Your task to perform on an android device: Clear the cart on newegg. Add "dell xps" to the cart on newegg Image 0: 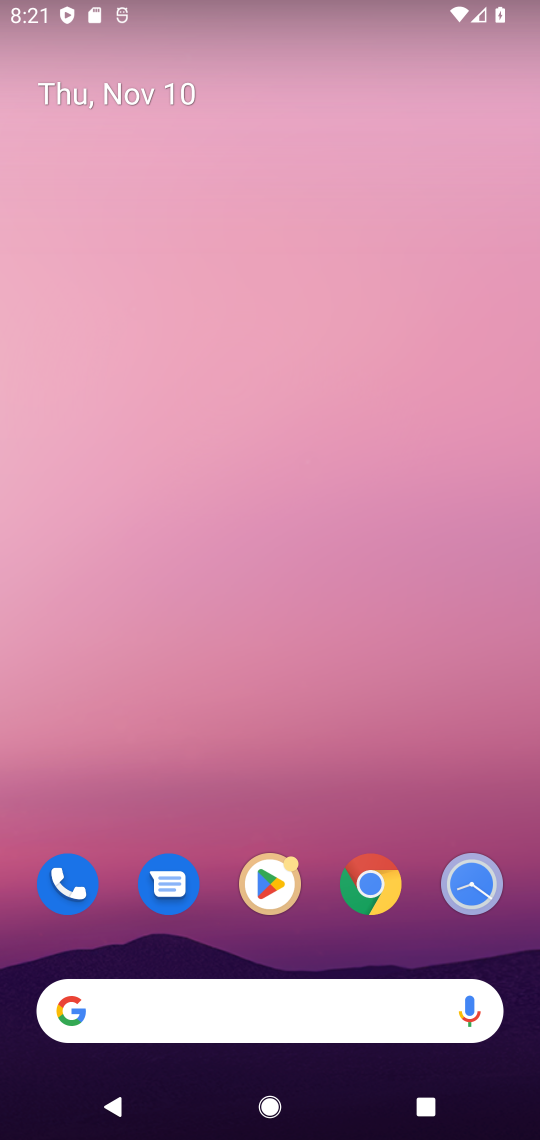
Step 0: click (191, 1007)
Your task to perform on an android device: Clear the cart on newegg. Add "dell xps" to the cart on newegg Image 1: 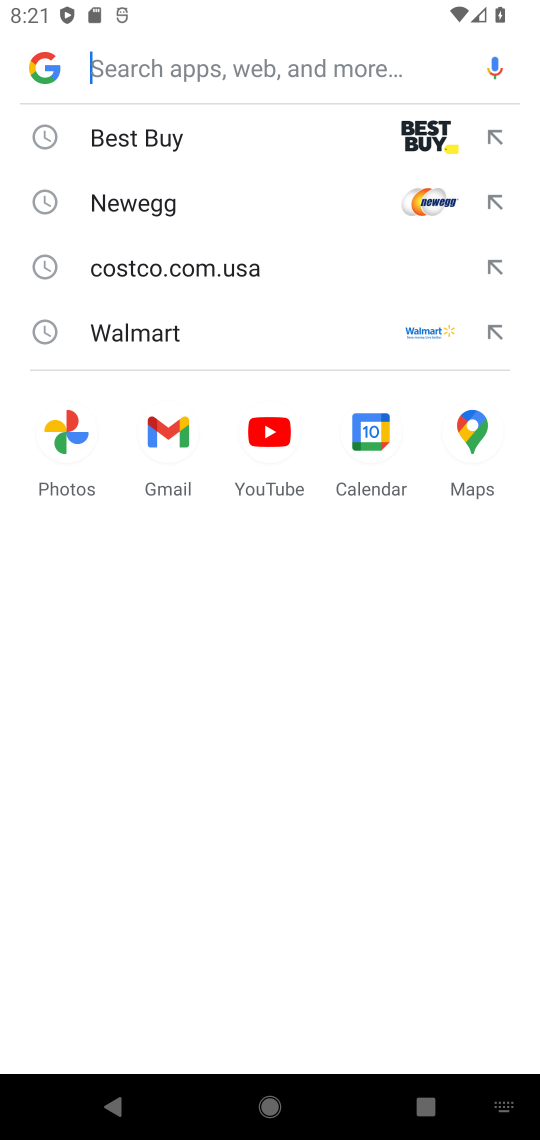
Step 1: click (149, 209)
Your task to perform on an android device: Clear the cart on newegg. Add "dell xps" to the cart on newegg Image 2: 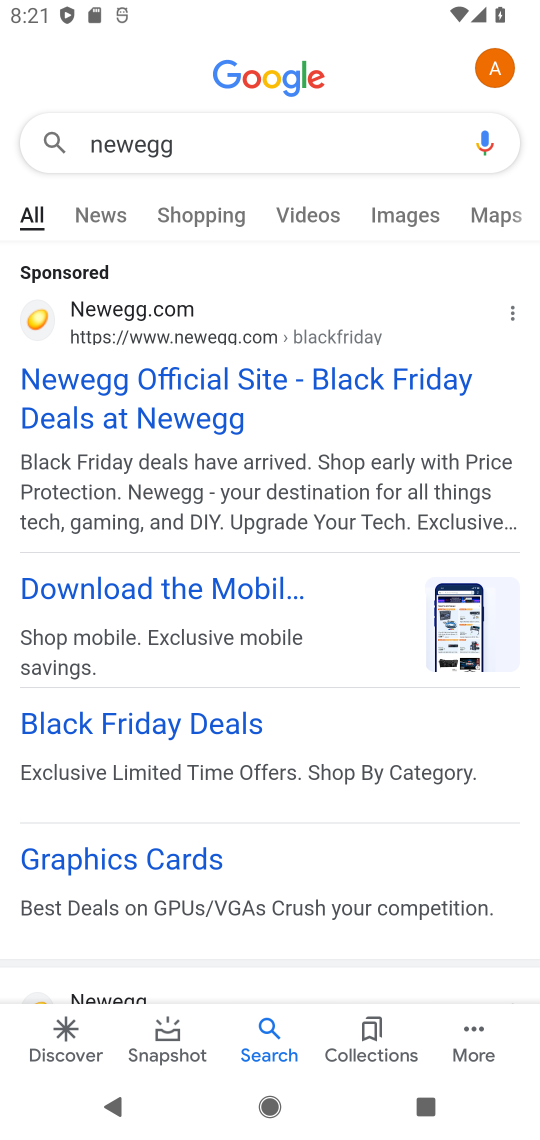
Step 2: click (117, 314)
Your task to perform on an android device: Clear the cart on newegg. Add "dell xps" to the cart on newegg Image 3: 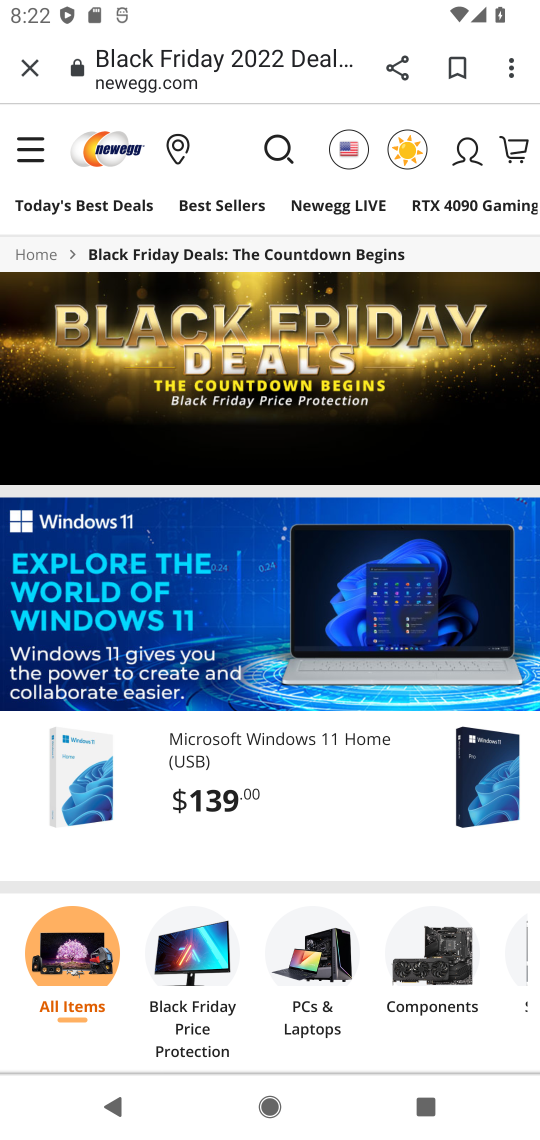
Step 3: click (277, 143)
Your task to perform on an android device: Clear the cart on newegg. Add "dell xps" to the cart on newegg Image 4: 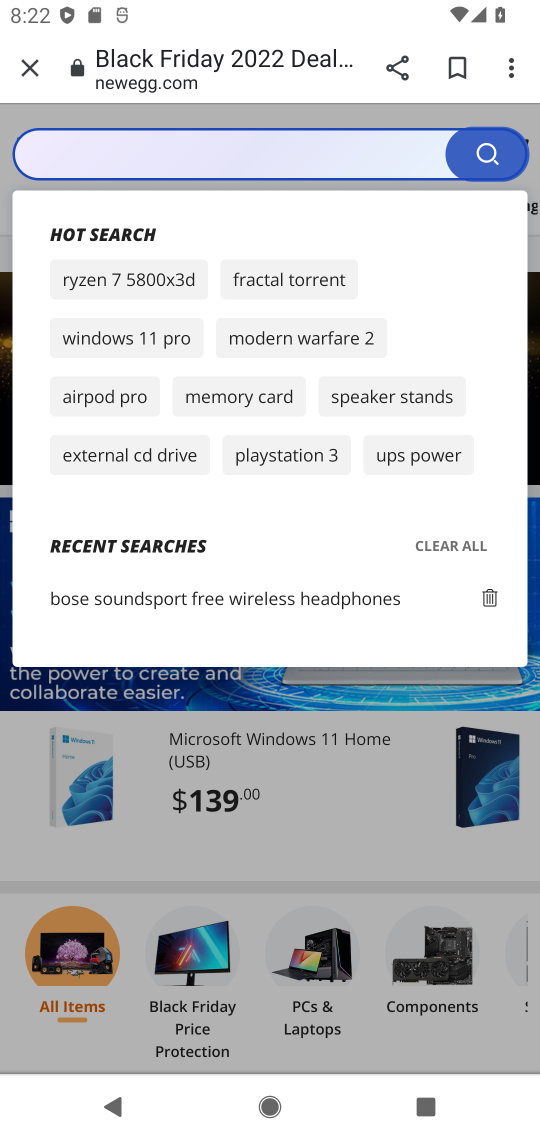
Step 4: click (259, 147)
Your task to perform on an android device: Clear the cart on newegg. Add "dell xps" to the cart on newegg Image 5: 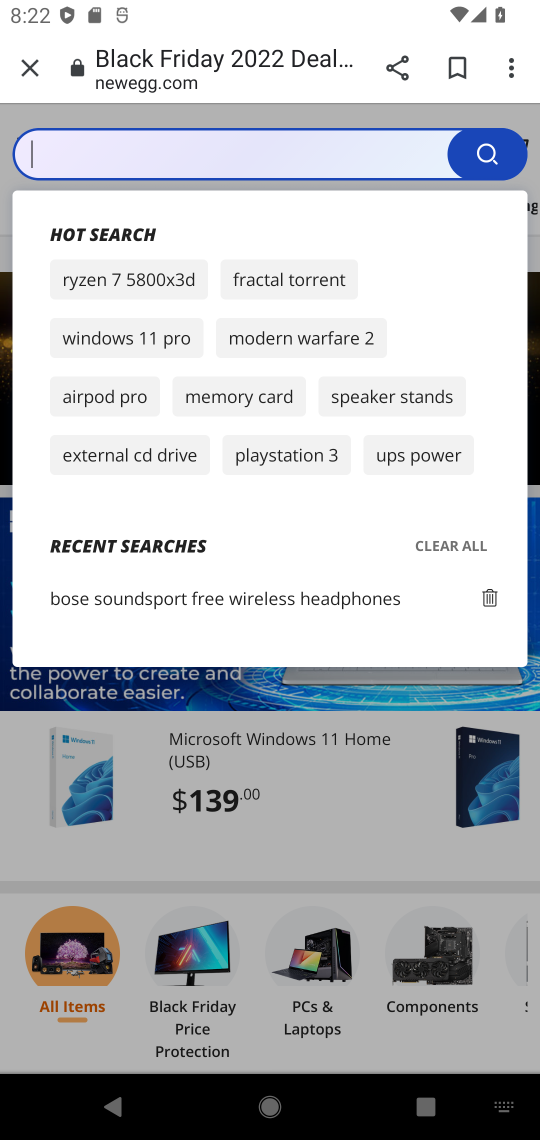
Step 5: type "dell xps"
Your task to perform on an android device: Clear the cart on newegg. Add "dell xps" to the cart on newegg Image 6: 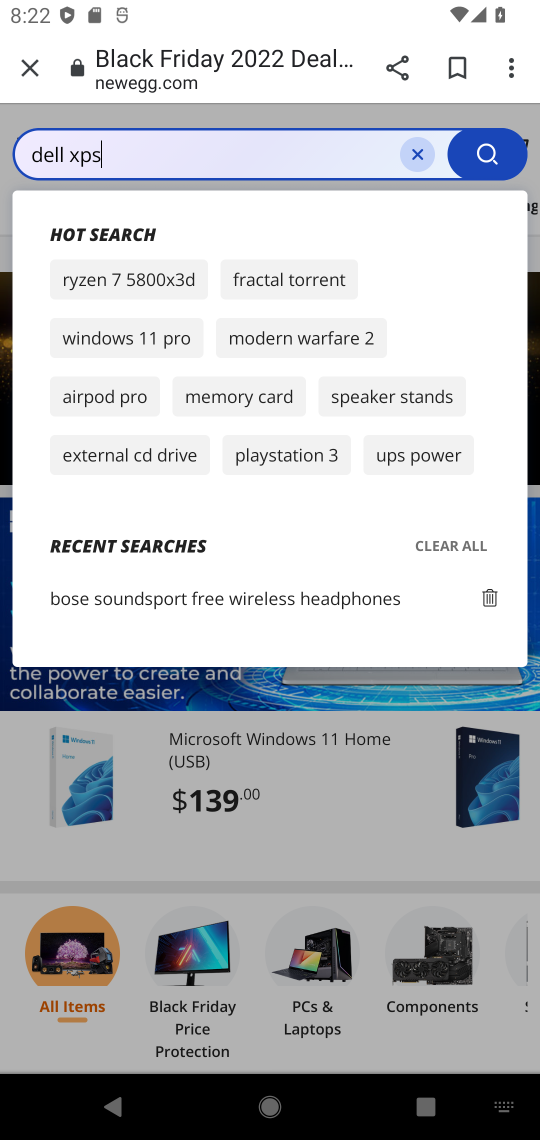
Step 6: type ""
Your task to perform on an android device: Clear the cart on newegg. Add "dell xps" to the cart on newegg Image 7: 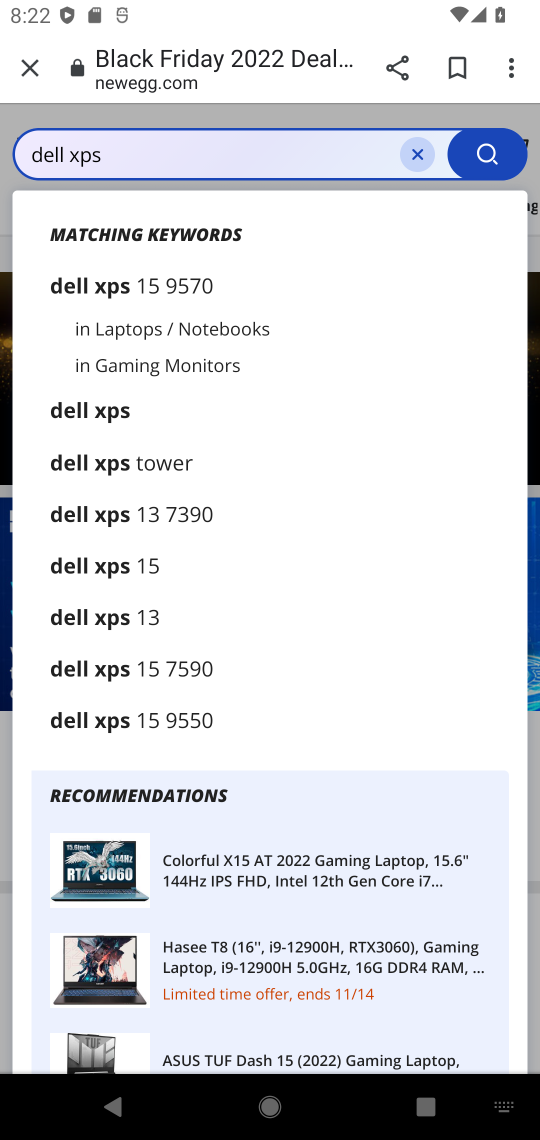
Step 7: click (106, 421)
Your task to perform on an android device: Clear the cart on newegg. Add "dell xps" to the cart on newegg Image 8: 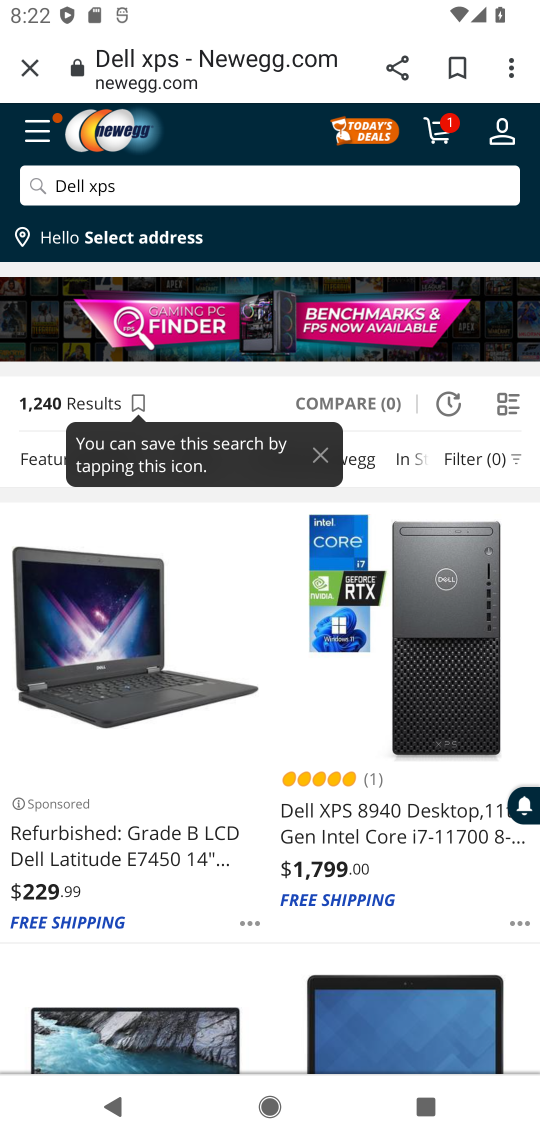
Step 8: click (81, 696)
Your task to perform on an android device: Clear the cart on newegg. Add "dell xps" to the cart on newegg Image 9: 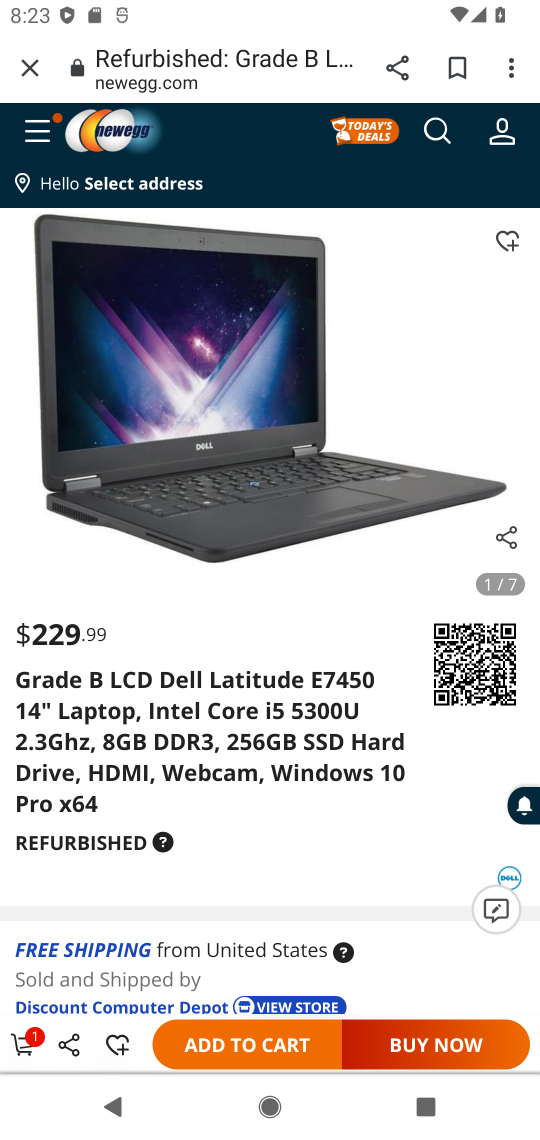
Step 9: press back button
Your task to perform on an android device: Clear the cart on newegg. Add "dell xps" to the cart on newegg Image 10: 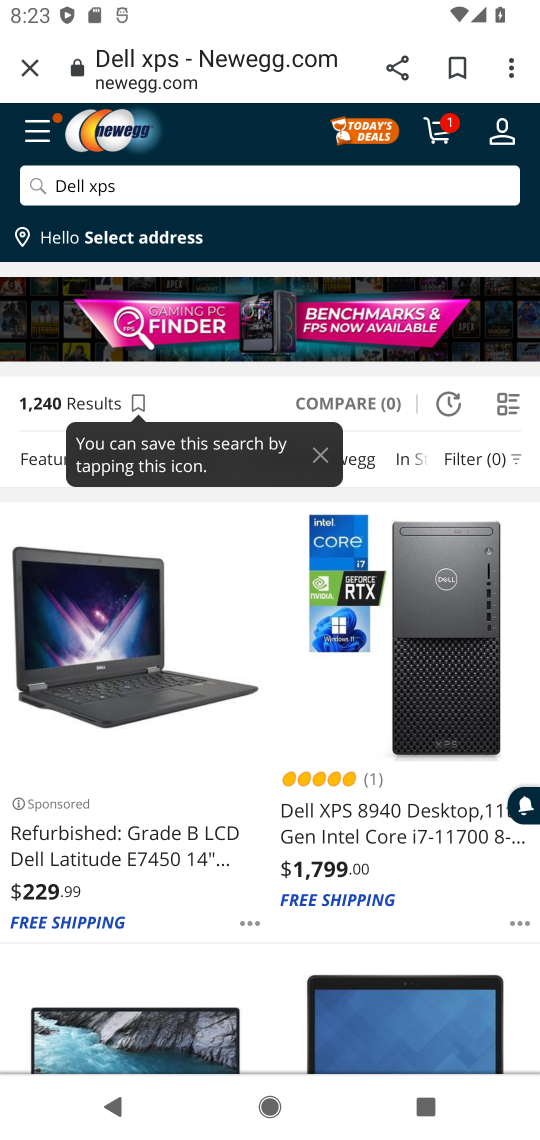
Step 10: click (440, 142)
Your task to perform on an android device: Clear the cart on newegg. Add "dell xps" to the cart on newegg Image 11: 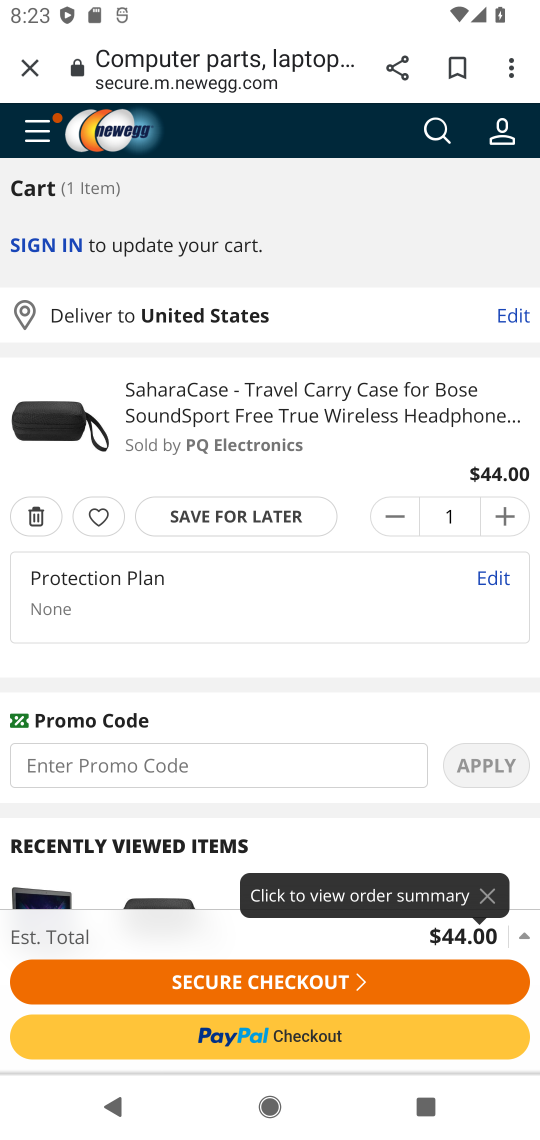
Step 11: click (37, 525)
Your task to perform on an android device: Clear the cart on newegg. Add "dell xps" to the cart on newegg Image 12: 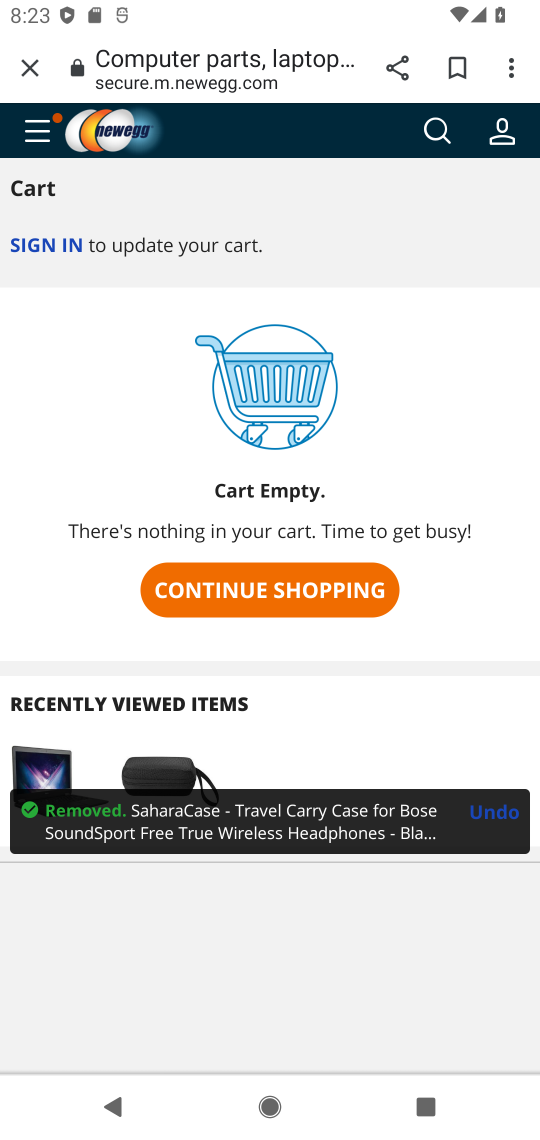
Step 12: click (444, 135)
Your task to perform on an android device: Clear the cart on newegg. Add "dell xps" to the cart on newegg Image 13: 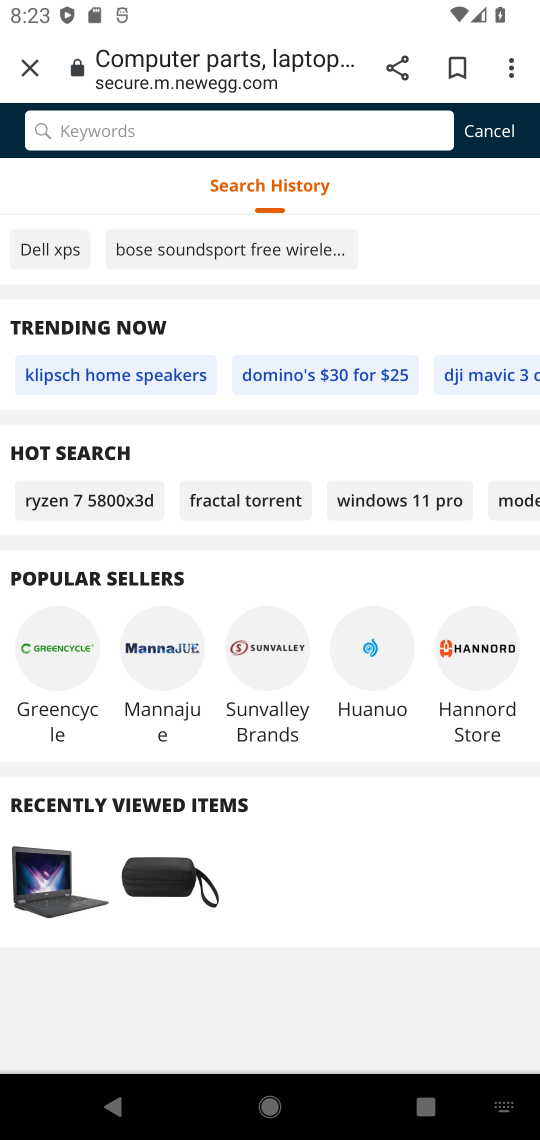
Step 13: type "dell xps"
Your task to perform on an android device: Clear the cart on newegg. Add "dell xps" to the cart on newegg Image 14: 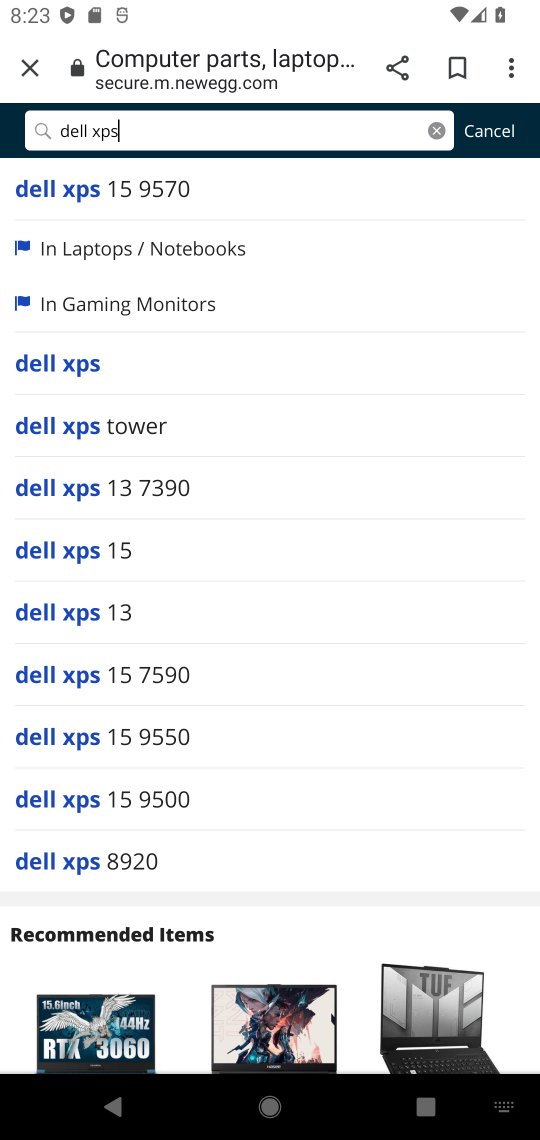
Step 14: click (74, 358)
Your task to perform on an android device: Clear the cart on newegg. Add "dell xps" to the cart on newegg Image 15: 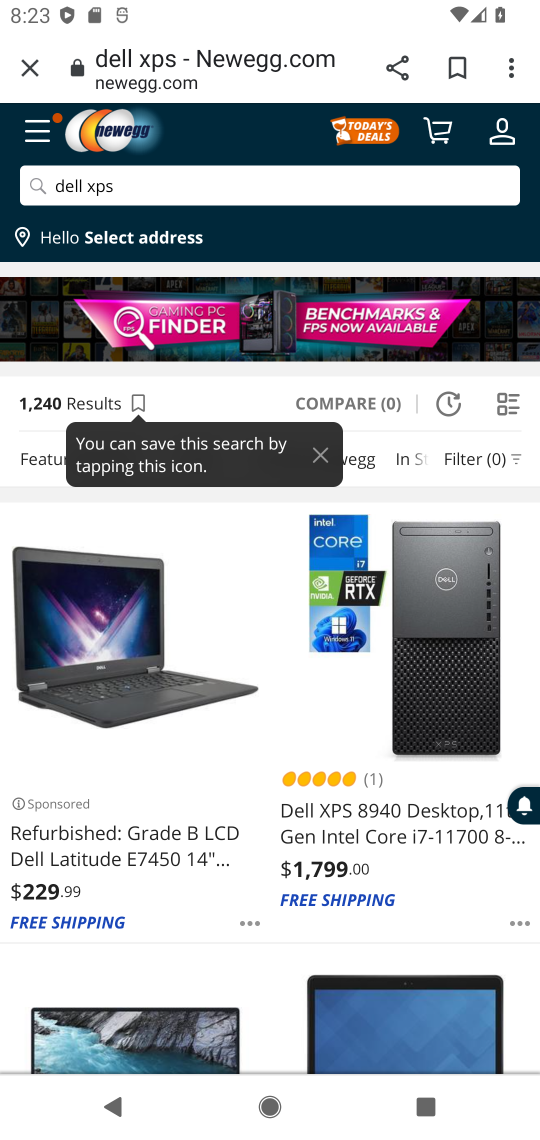
Step 15: click (76, 725)
Your task to perform on an android device: Clear the cart on newegg. Add "dell xps" to the cart on newegg Image 16: 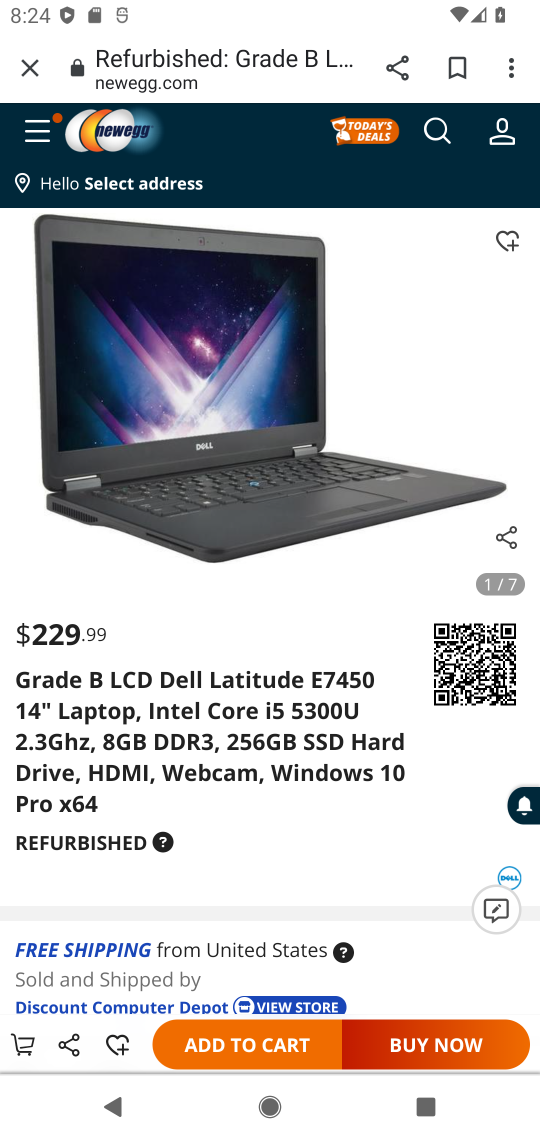
Step 16: click (76, 725)
Your task to perform on an android device: Clear the cart on newegg. Add "dell xps" to the cart on newegg Image 17: 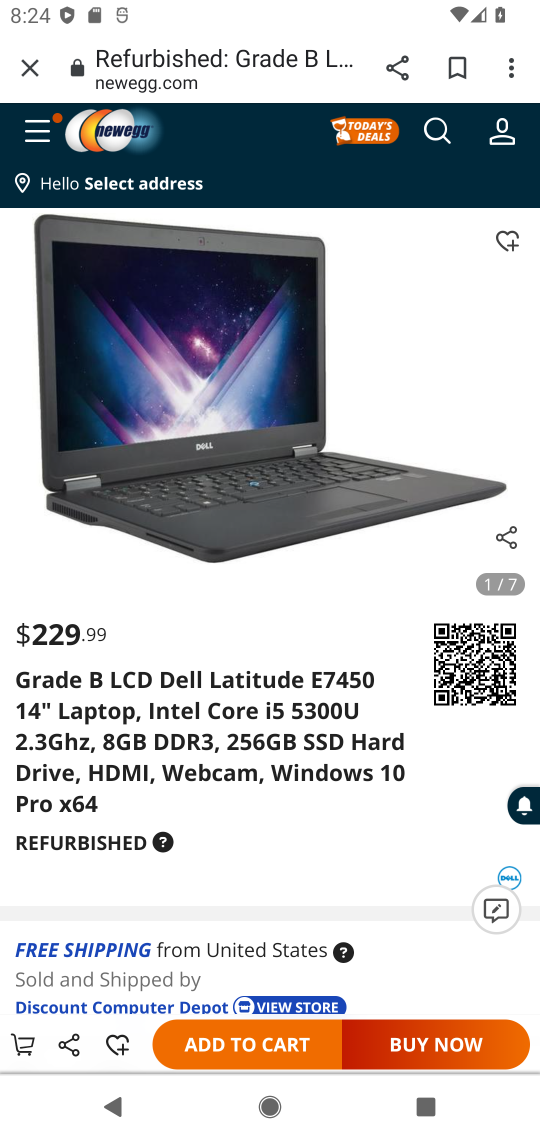
Step 17: click (226, 1046)
Your task to perform on an android device: Clear the cart on newegg. Add "dell xps" to the cart on newegg Image 18: 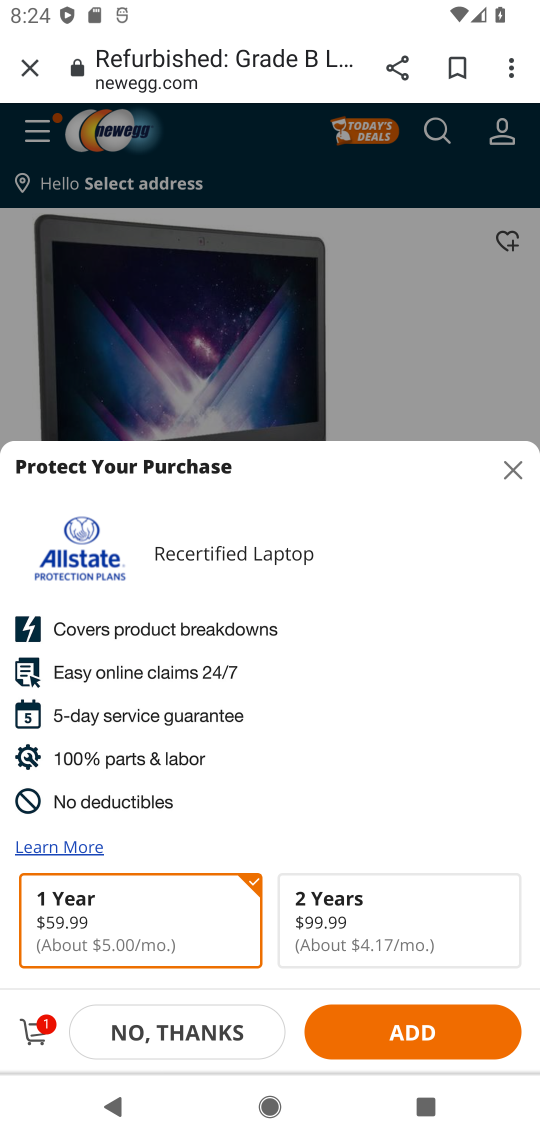
Step 18: click (193, 1039)
Your task to perform on an android device: Clear the cart on newegg. Add "dell xps" to the cart on newegg Image 19: 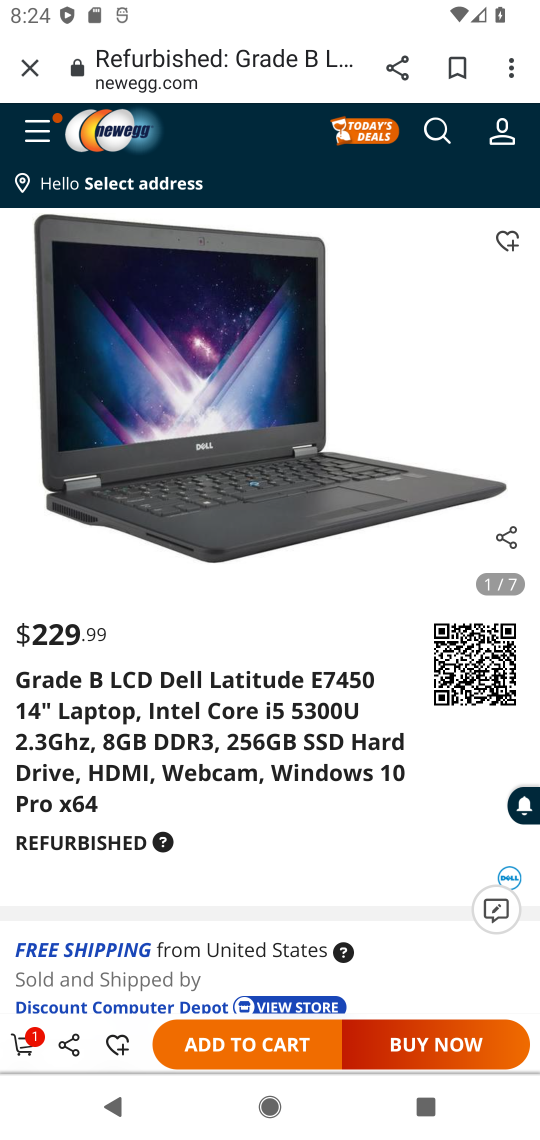
Step 19: task complete